Your task to perform on an android device: change your default location settings in chrome Image 0: 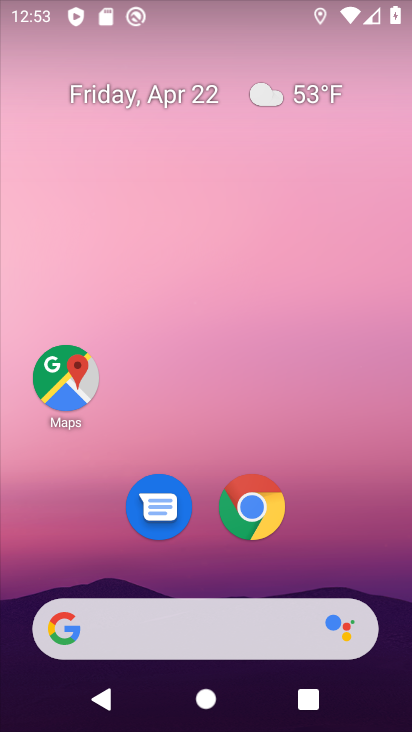
Step 0: click (242, 510)
Your task to perform on an android device: change your default location settings in chrome Image 1: 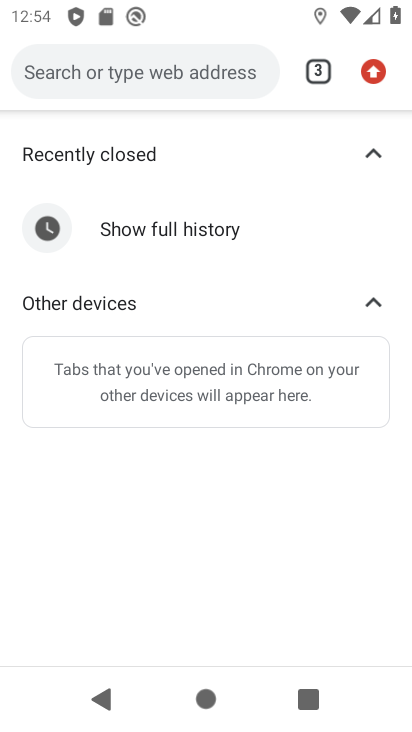
Step 1: drag from (378, 67) to (119, 504)
Your task to perform on an android device: change your default location settings in chrome Image 2: 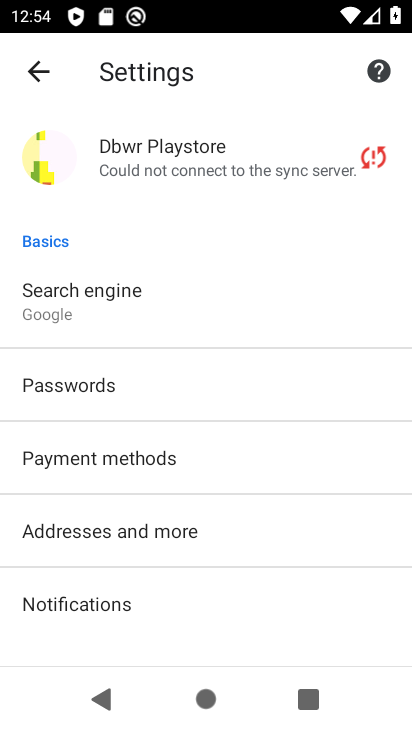
Step 2: drag from (240, 583) to (203, 227)
Your task to perform on an android device: change your default location settings in chrome Image 3: 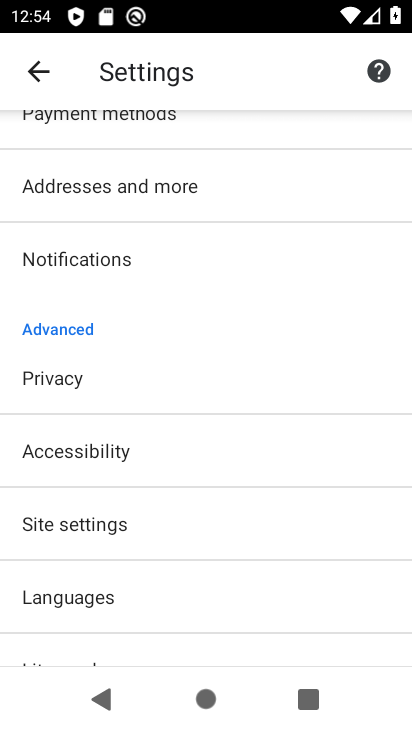
Step 3: click (64, 532)
Your task to perform on an android device: change your default location settings in chrome Image 4: 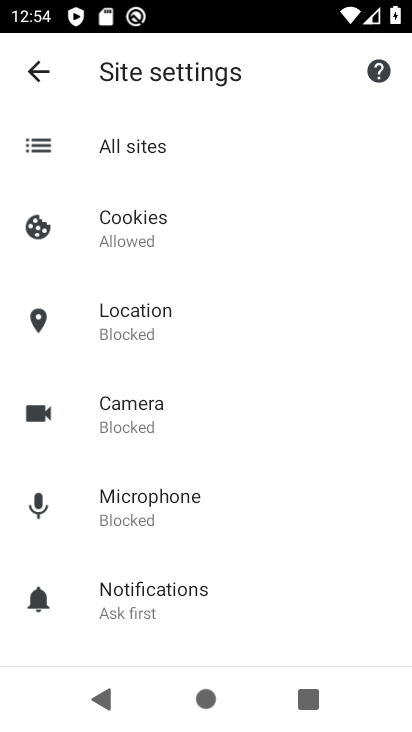
Step 4: click (137, 326)
Your task to perform on an android device: change your default location settings in chrome Image 5: 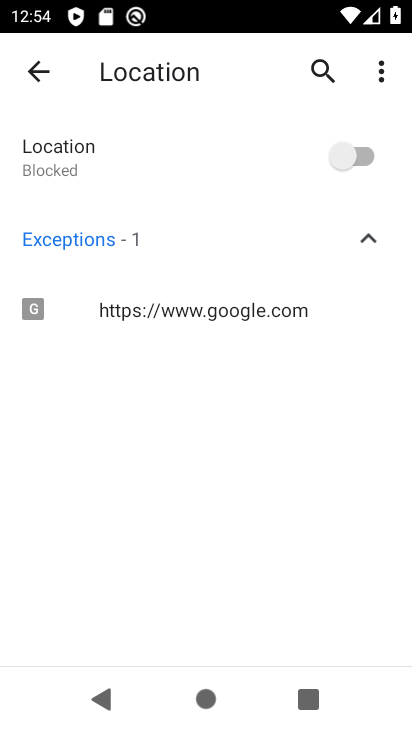
Step 5: click (363, 157)
Your task to perform on an android device: change your default location settings in chrome Image 6: 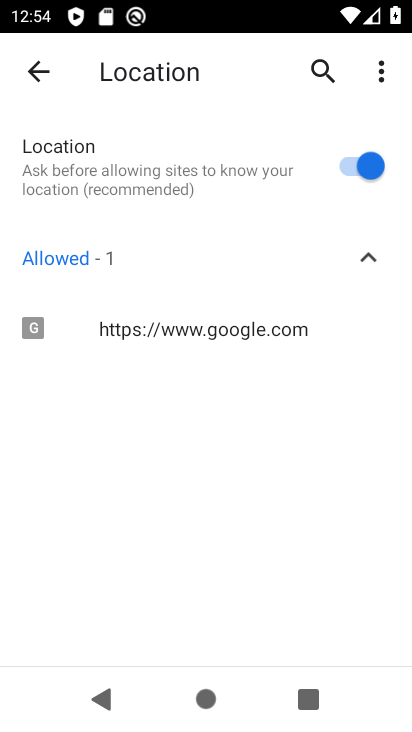
Step 6: task complete